Your task to perform on an android device: change the clock display to digital Image 0: 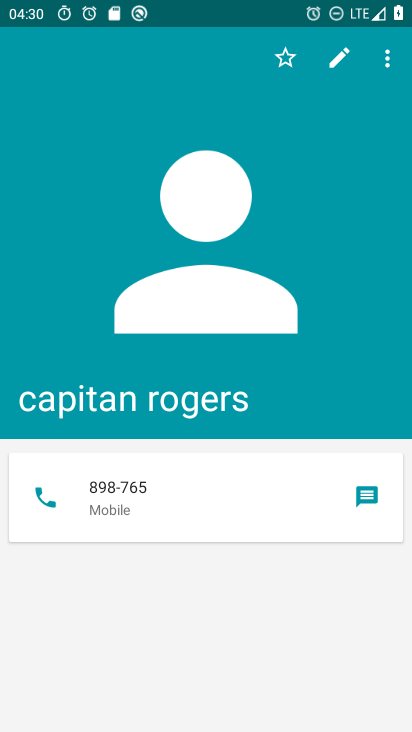
Step 0: press home button
Your task to perform on an android device: change the clock display to digital Image 1: 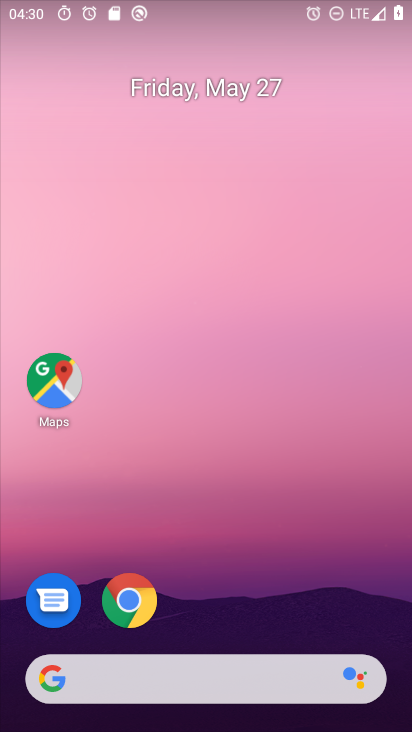
Step 1: drag from (231, 728) to (196, 87)
Your task to perform on an android device: change the clock display to digital Image 2: 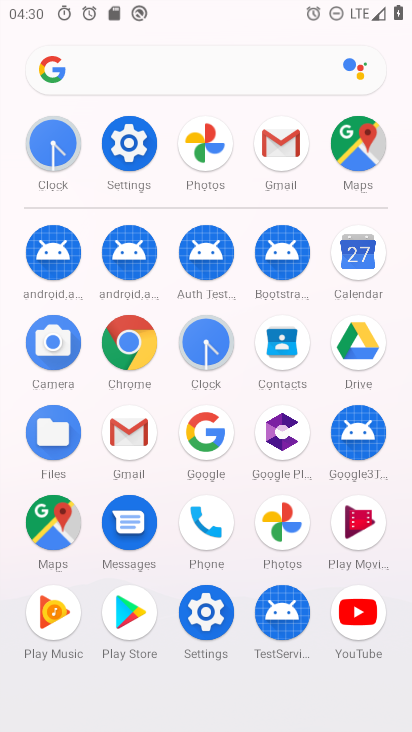
Step 2: click (214, 340)
Your task to perform on an android device: change the clock display to digital Image 3: 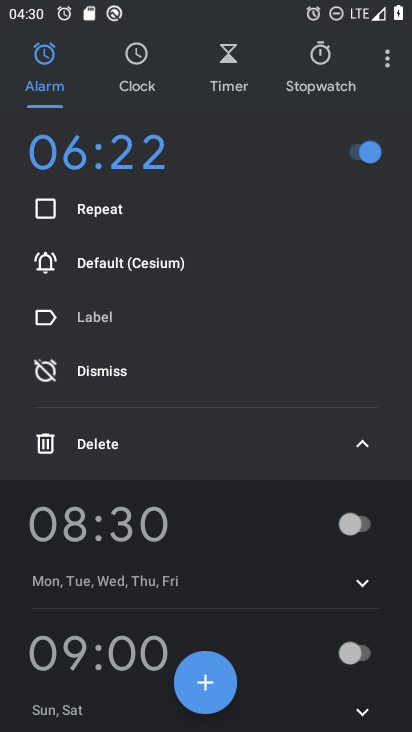
Step 3: click (391, 65)
Your task to perform on an android device: change the clock display to digital Image 4: 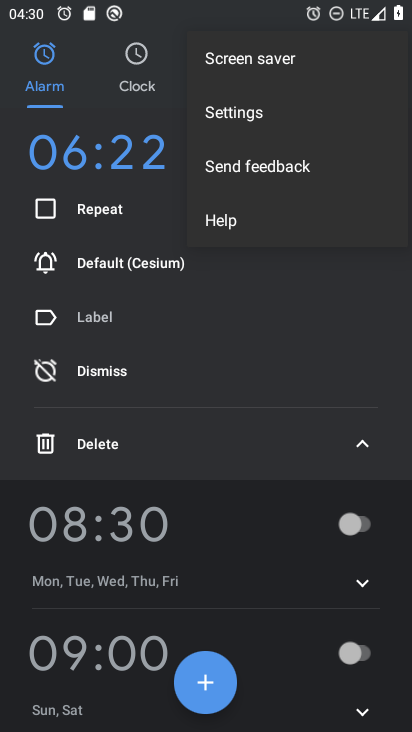
Step 4: click (252, 113)
Your task to perform on an android device: change the clock display to digital Image 5: 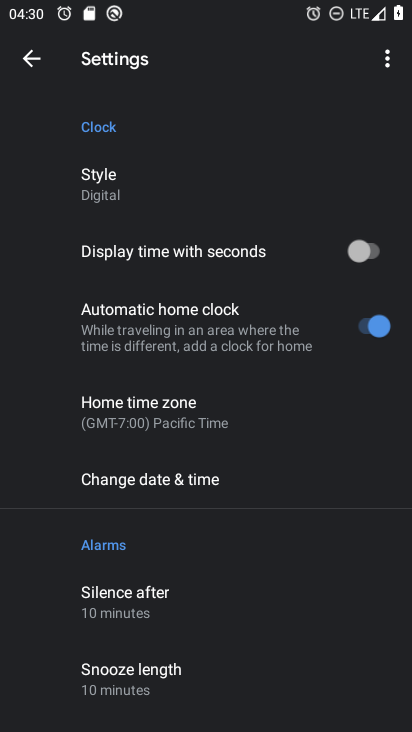
Step 5: task complete